Your task to perform on an android device: Open Google Chrome and click the shortcut for Amazon.com Image 0: 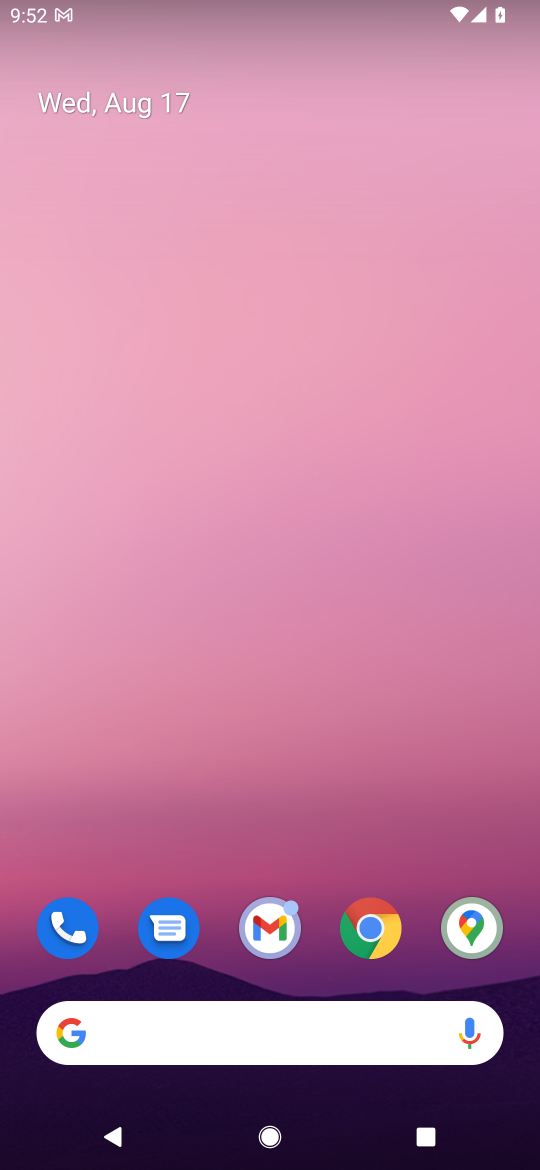
Step 0: click (382, 944)
Your task to perform on an android device: Open Google Chrome and click the shortcut for Amazon.com Image 1: 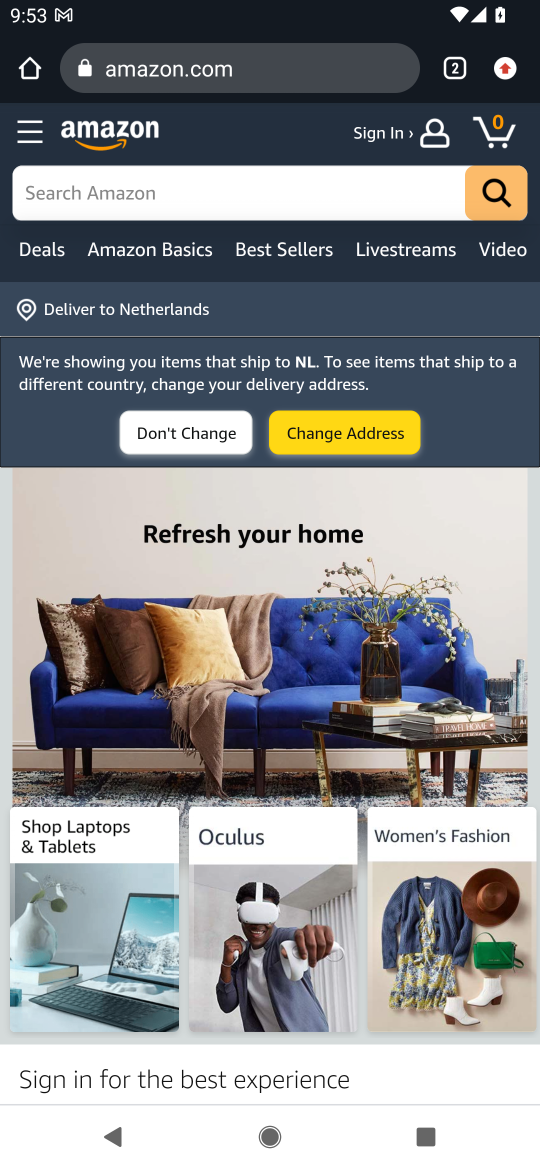
Step 1: task complete